Your task to perform on an android device: allow cookies in the chrome app Image 0: 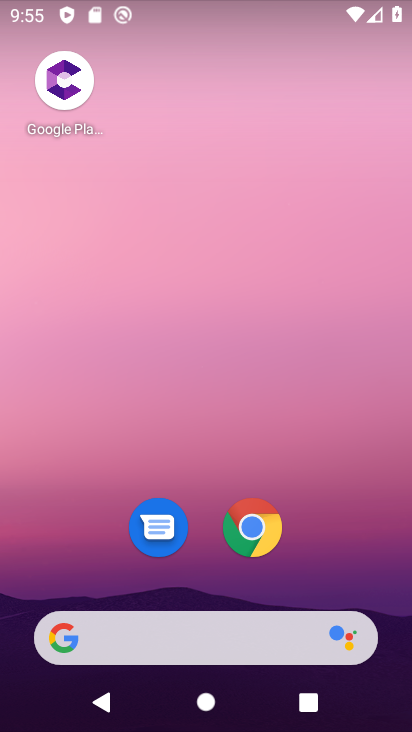
Step 0: drag from (213, 173) to (204, 108)
Your task to perform on an android device: allow cookies in the chrome app Image 1: 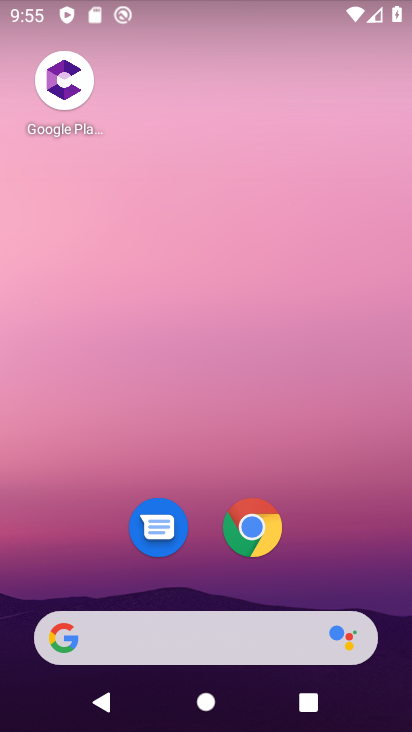
Step 1: drag from (251, 441) to (180, 25)
Your task to perform on an android device: allow cookies in the chrome app Image 2: 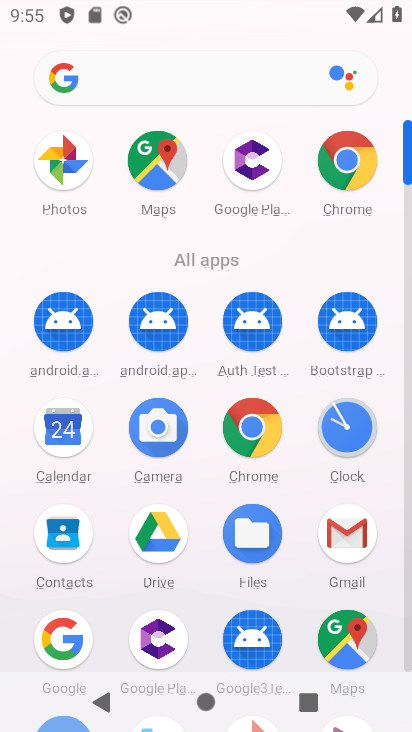
Step 2: click (343, 160)
Your task to perform on an android device: allow cookies in the chrome app Image 3: 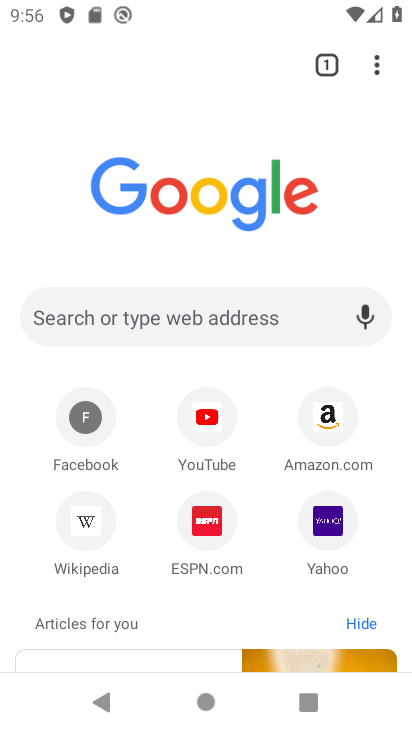
Step 3: drag from (371, 61) to (185, 445)
Your task to perform on an android device: allow cookies in the chrome app Image 4: 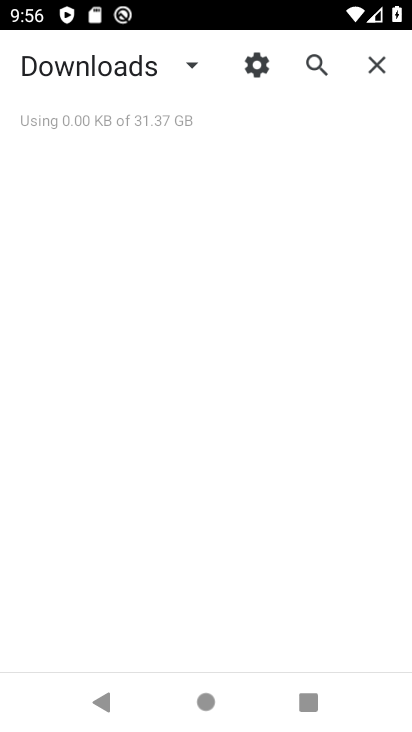
Step 4: click (384, 59)
Your task to perform on an android device: allow cookies in the chrome app Image 5: 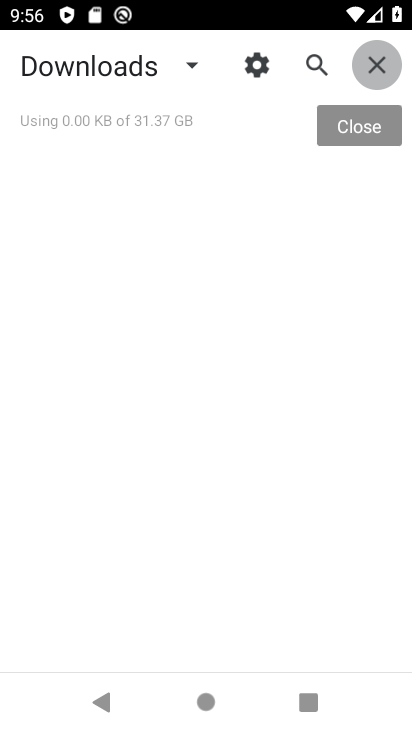
Step 5: click (384, 59)
Your task to perform on an android device: allow cookies in the chrome app Image 6: 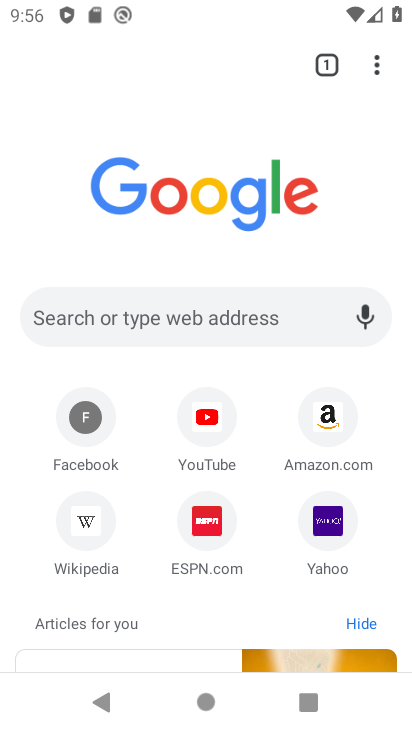
Step 6: drag from (377, 64) to (148, 132)
Your task to perform on an android device: allow cookies in the chrome app Image 7: 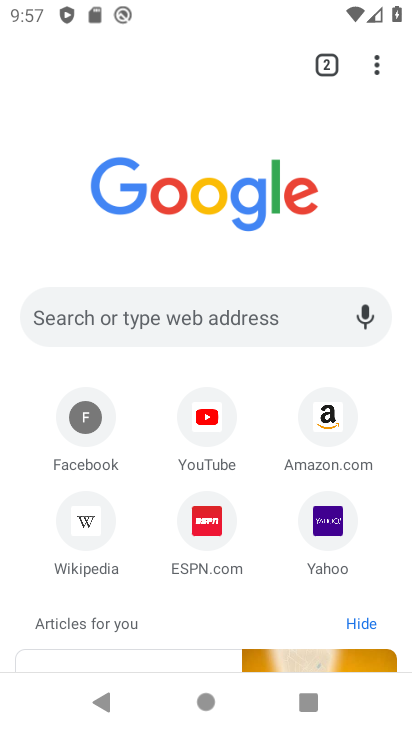
Step 7: drag from (376, 59) to (151, 549)
Your task to perform on an android device: allow cookies in the chrome app Image 8: 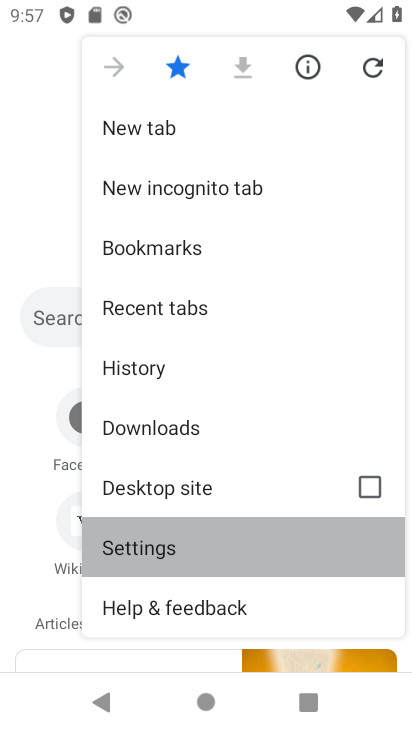
Step 8: click (151, 549)
Your task to perform on an android device: allow cookies in the chrome app Image 9: 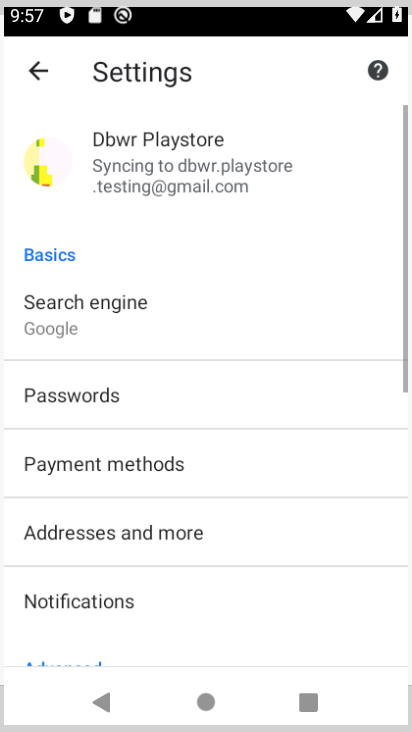
Step 9: click (150, 550)
Your task to perform on an android device: allow cookies in the chrome app Image 10: 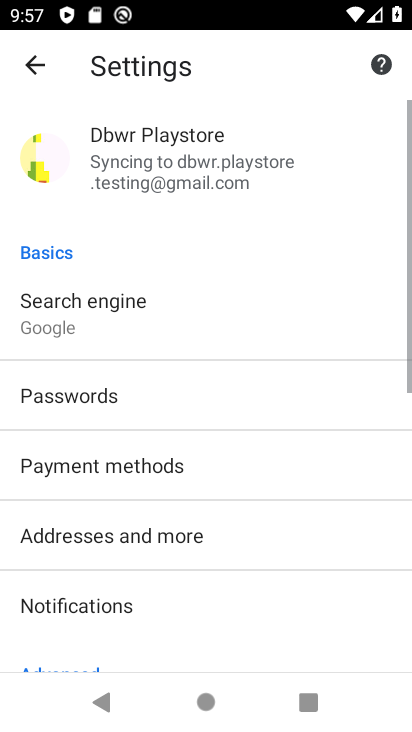
Step 10: click (151, 551)
Your task to perform on an android device: allow cookies in the chrome app Image 11: 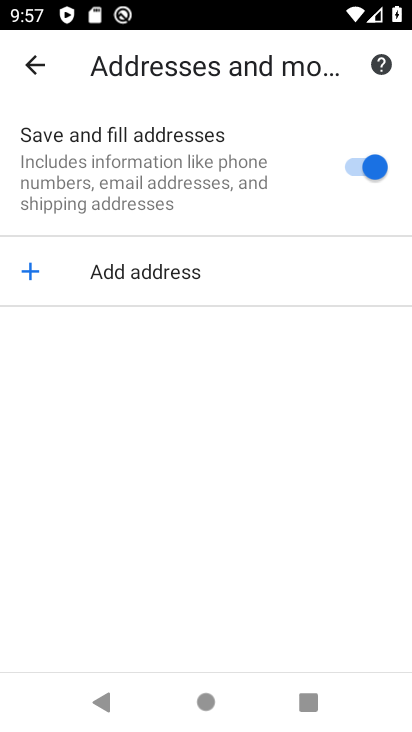
Step 11: click (32, 64)
Your task to perform on an android device: allow cookies in the chrome app Image 12: 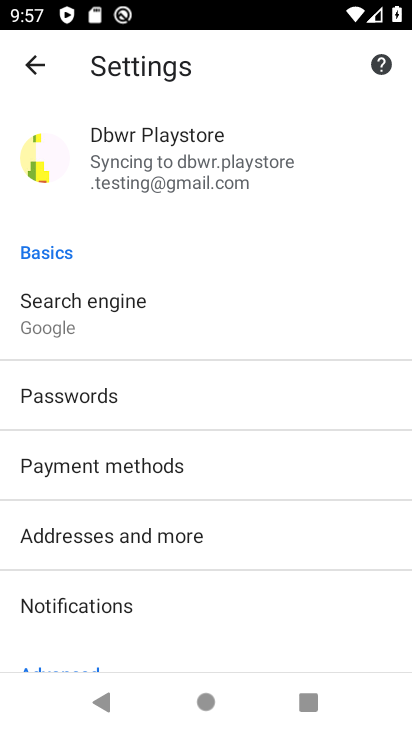
Step 12: drag from (151, 482) to (170, 70)
Your task to perform on an android device: allow cookies in the chrome app Image 13: 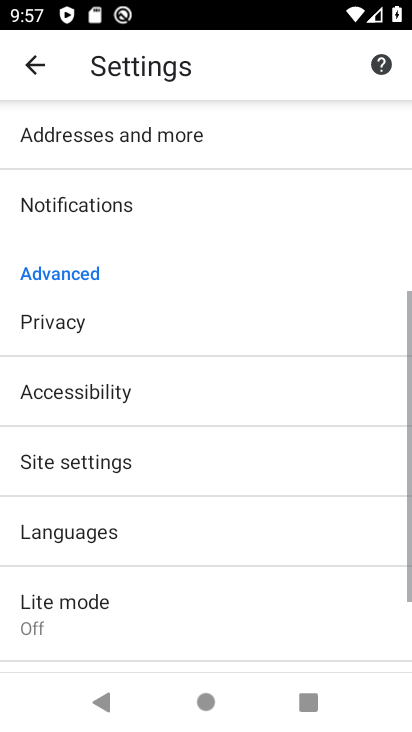
Step 13: drag from (140, 305) to (50, 11)
Your task to perform on an android device: allow cookies in the chrome app Image 14: 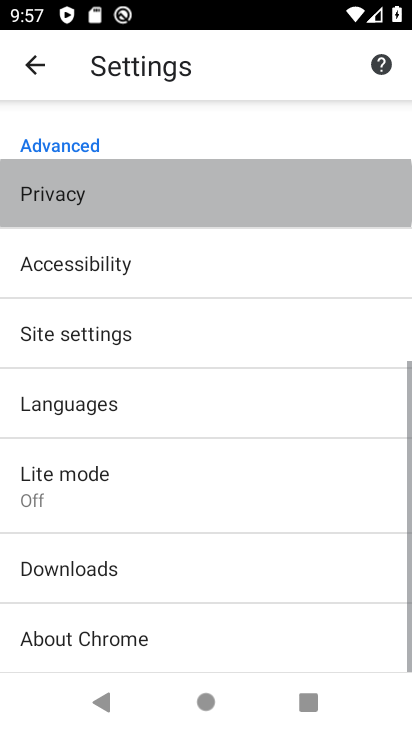
Step 14: drag from (132, 306) to (170, 128)
Your task to perform on an android device: allow cookies in the chrome app Image 15: 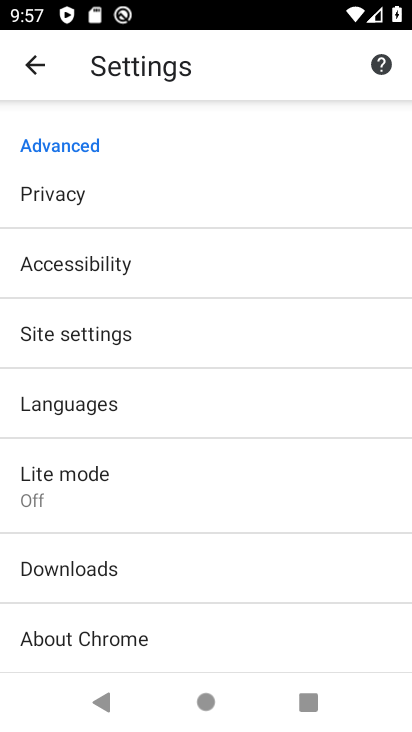
Step 15: click (60, 343)
Your task to perform on an android device: allow cookies in the chrome app Image 16: 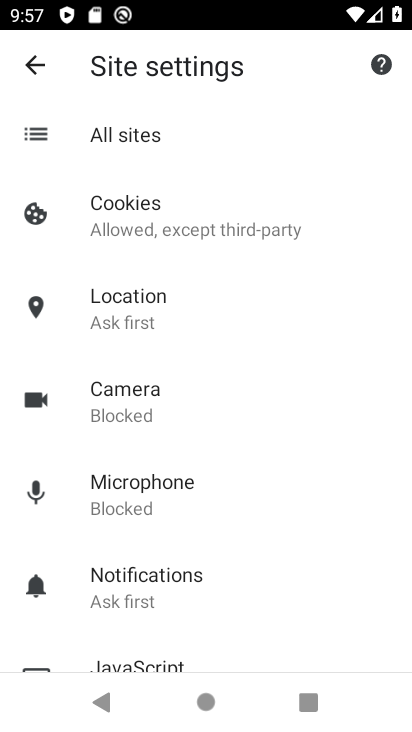
Step 16: click (149, 134)
Your task to perform on an android device: allow cookies in the chrome app Image 17: 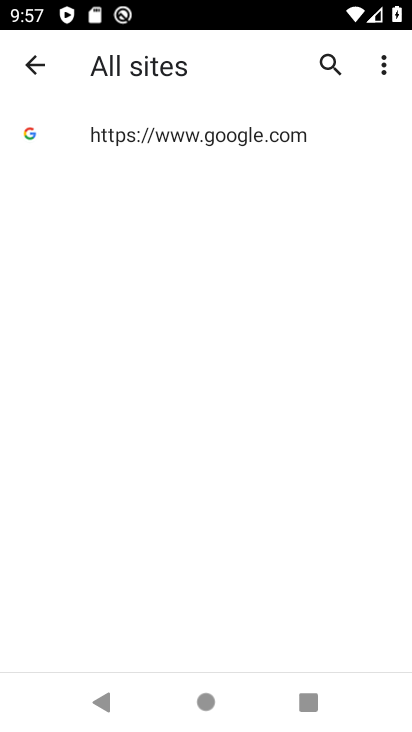
Step 17: click (240, 141)
Your task to perform on an android device: allow cookies in the chrome app Image 18: 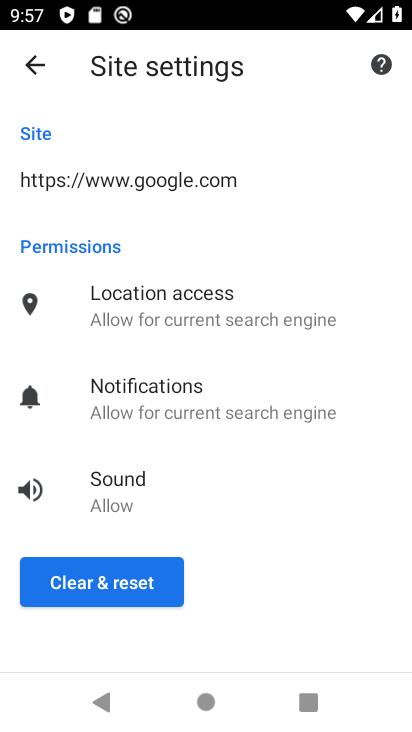
Step 18: task complete